Your task to perform on an android device: Add bose soundsport free to the cart on target.com, then select checkout. Image 0: 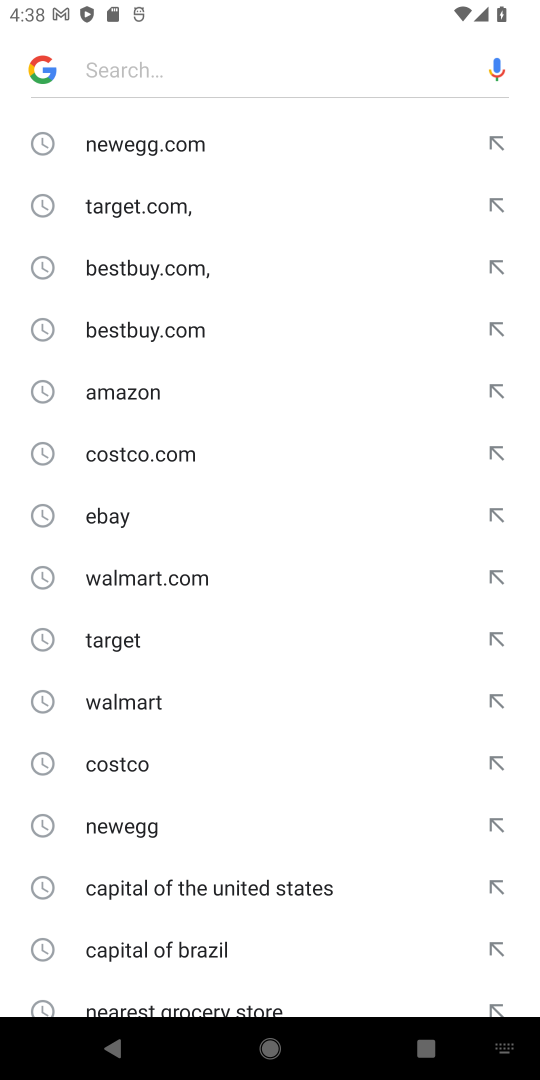
Step 0: press home button
Your task to perform on an android device: Add bose soundsport free to the cart on target.com, then select checkout. Image 1: 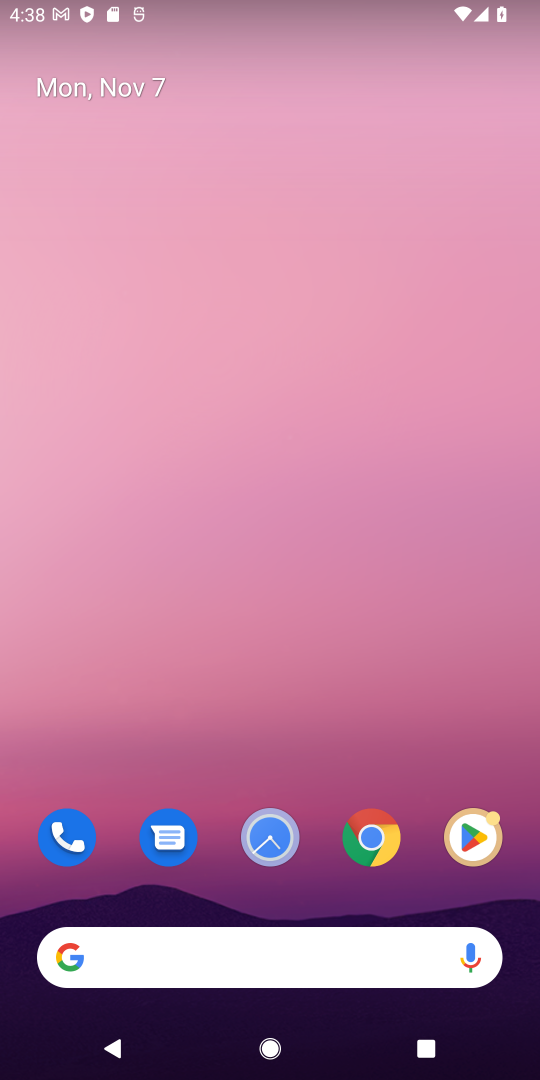
Step 1: click (354, 862)
Your task to perform on an android device: Add bose soundsport free to the cart on target.com, then select checkout. Image 2: 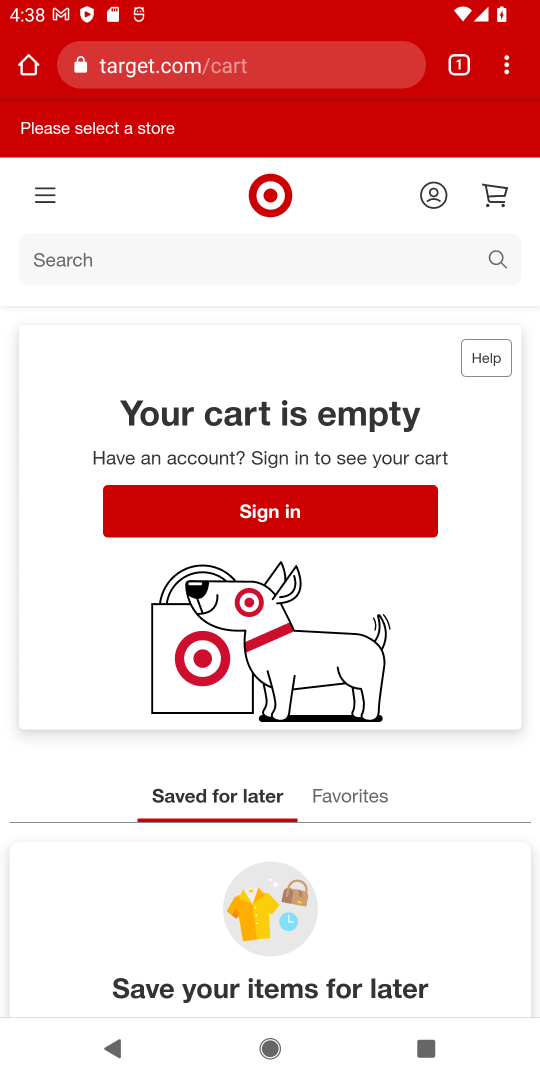
Step 2: click (217, 70)
Your task to perform on an android device: Add bose soundsport free to the cart on target.com, then select checkout. Image 3: 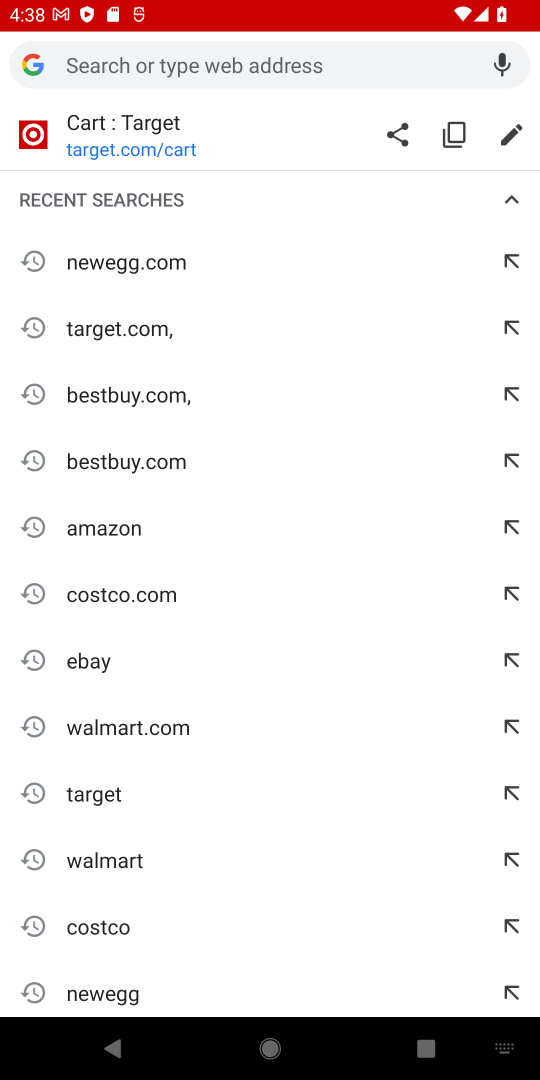
Step 3: type "target.com"
Your task to perform on an android device: Add bose soundsport free to the cart on target.com, then select checkout. Image 4: 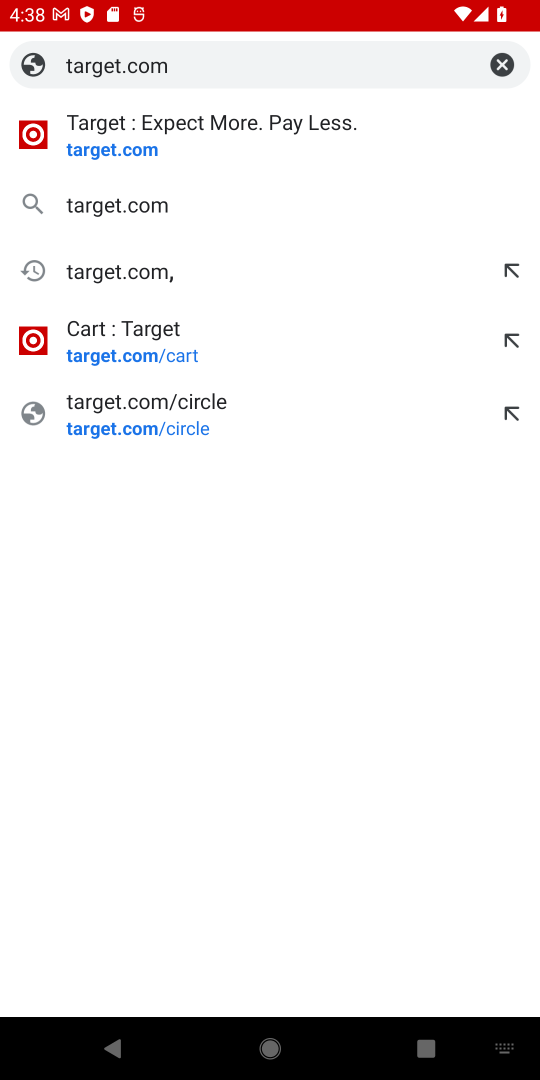
Step 4: click (226, 120)
Your task to perform on an android device: Add bose soundsport free to the cart on target.com, then select checkout. Image 5: 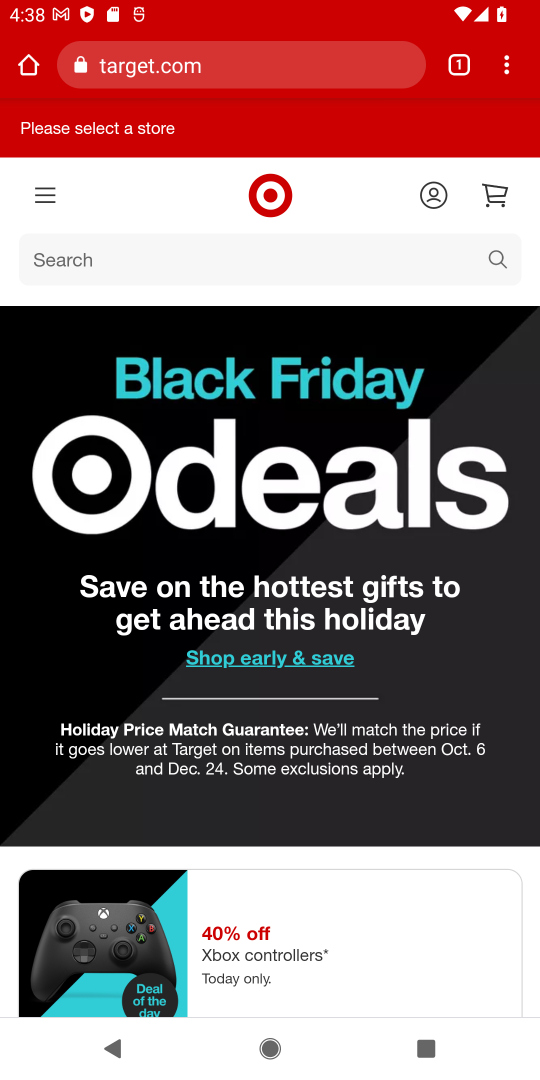
Step 5: click (209, 257)
Your task to perform on an android device: Add bose soundsport free to the cart on target.com, then select checkout. Image 6: 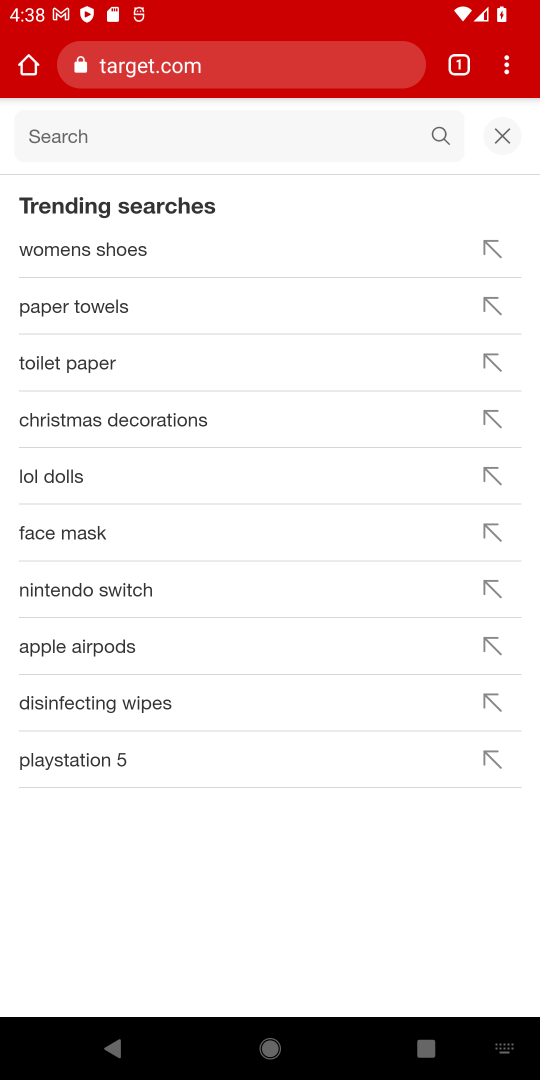
Step 6: type "bose soundsport"
Your task to perform on an android device: Add bose soundsport free to the cart on target.com, then select checkout. Image 7: 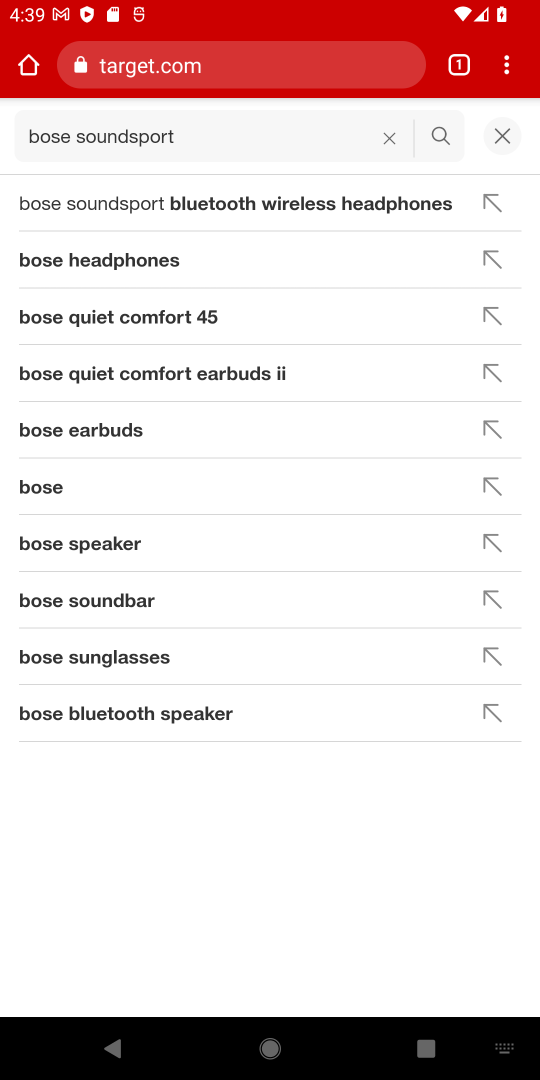
Step 7: press enter
Your task to perform on an android device: Add bose soundsport free to the cart on target.com, then select checkout. Image 8: 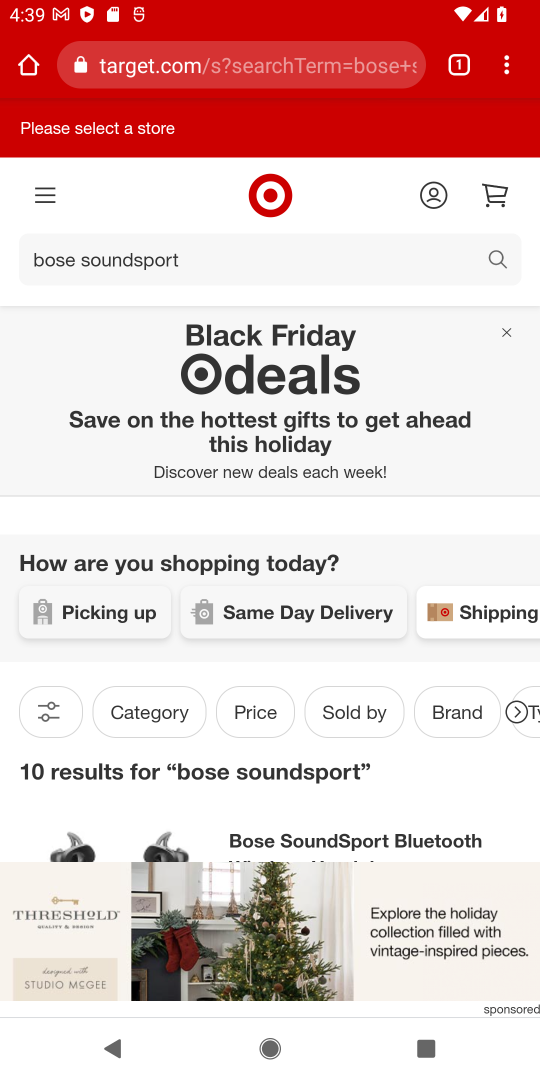
Step 8: drag from (288, 826) to (167, 257)
Your task to perform on an android device: Add bose soundsport free to the cart on target.com, then select checkout. Image 9: 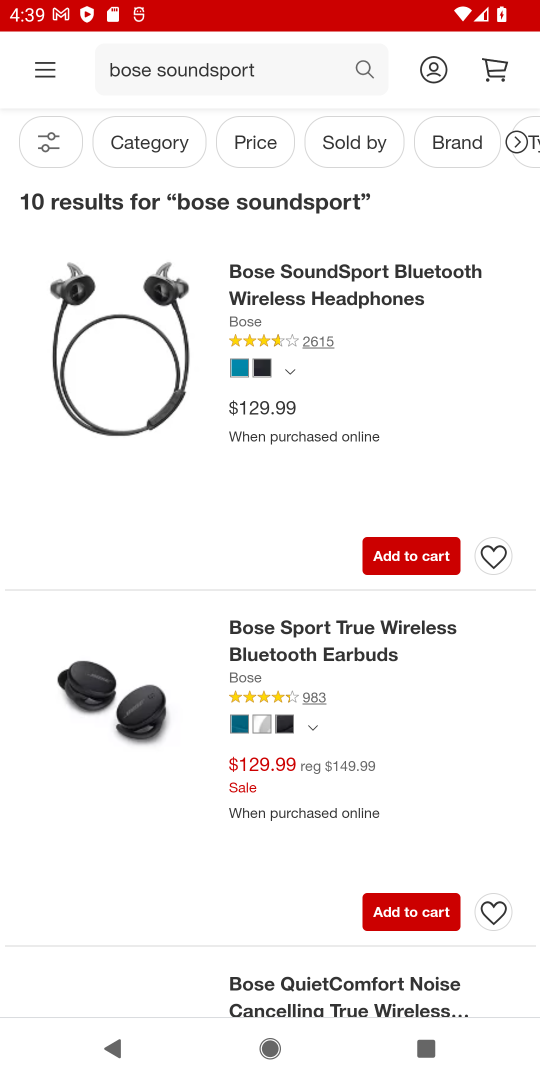
Step 9: click (423, 550)
Your task to perform on an android device: Add bose soundsport free to the cart on target.com, then select checkout. Image 10: 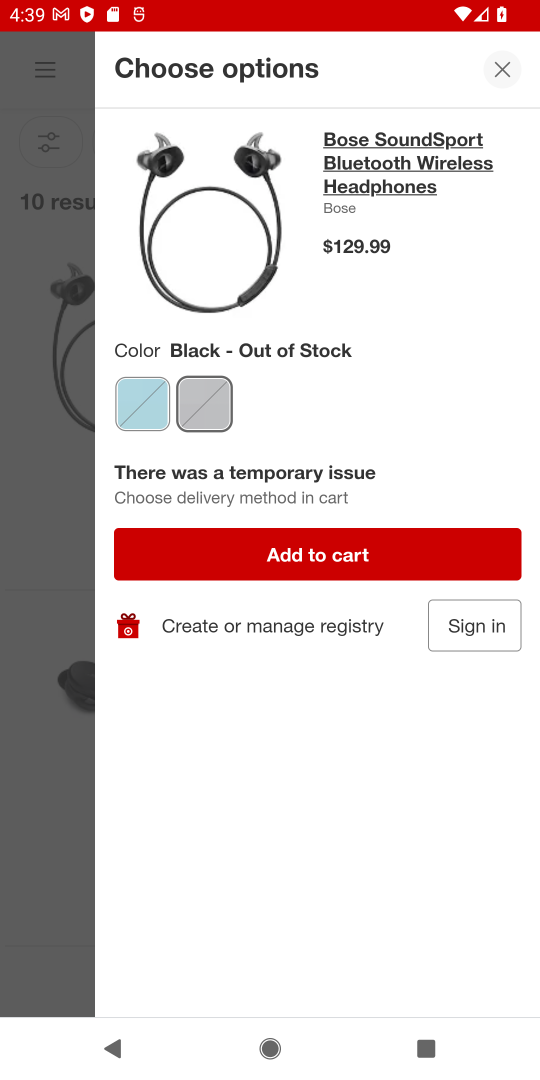
Step 10: click (423, 550)
Your task to perform on an android device: Add bose soundsport free to the cart on target.com, then select checkout. Image 11: 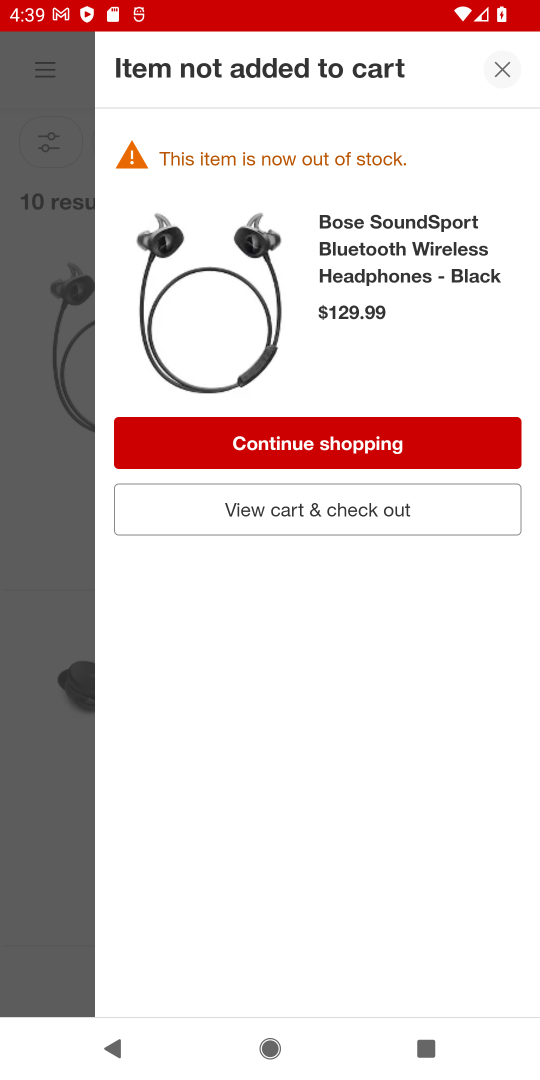
Step 11: click (385, 508)
Your task to perform on an android device: Add bose soundsport free to the cart on target.com, then select checkout. Image 12: 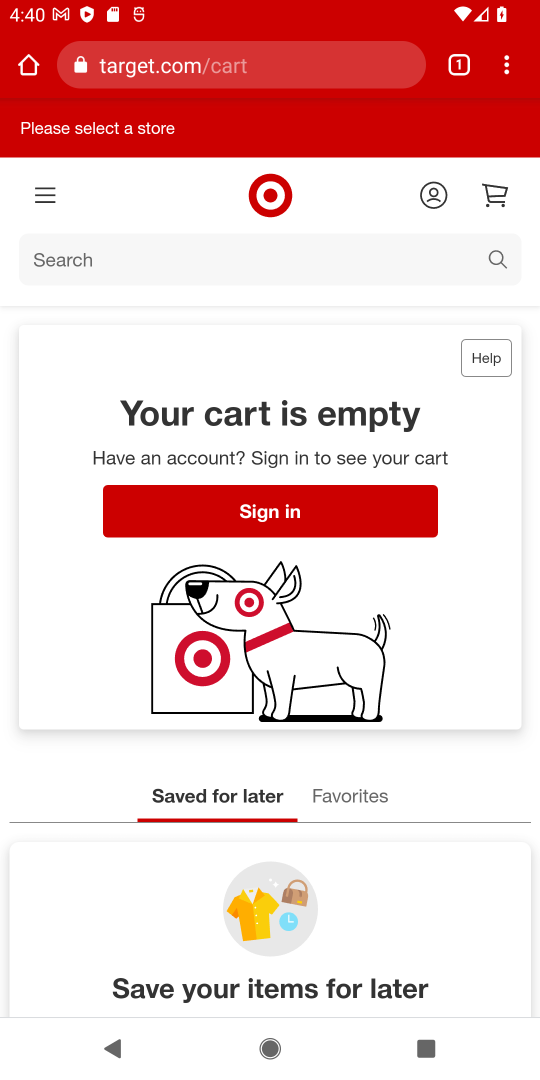
Step 12: task complete